Your task to perform on an android device: Turn on the flashlight Image 0: 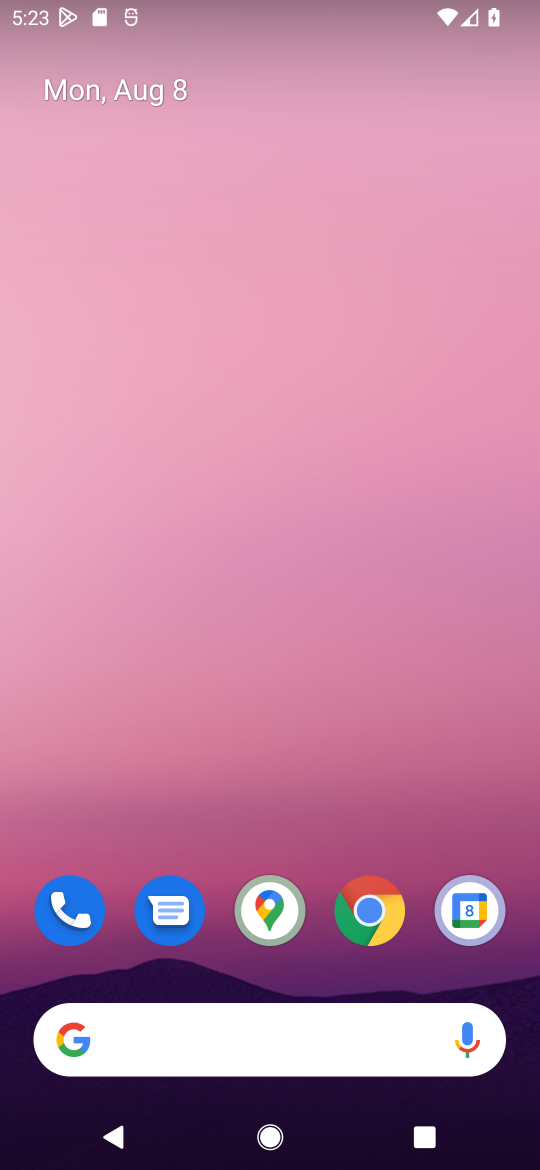
Step 0: drag from (346, 11) to (384, 447)
Your task to perform on an android device: Turn on the flashlight Image 1: 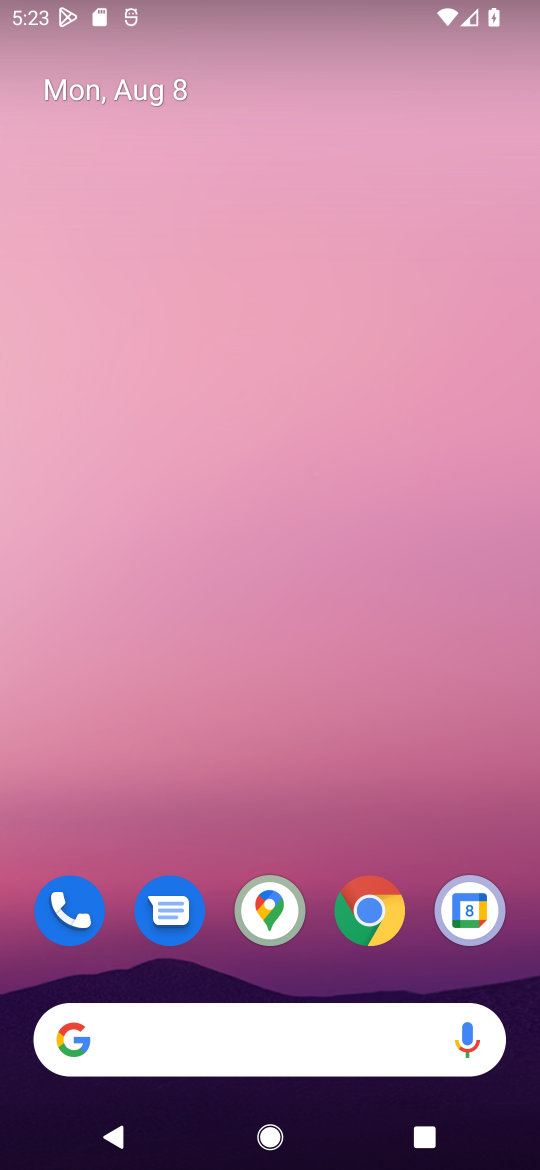
Step 1: task complete